Your task to perform on an android device: Open CNN.com Image 0: 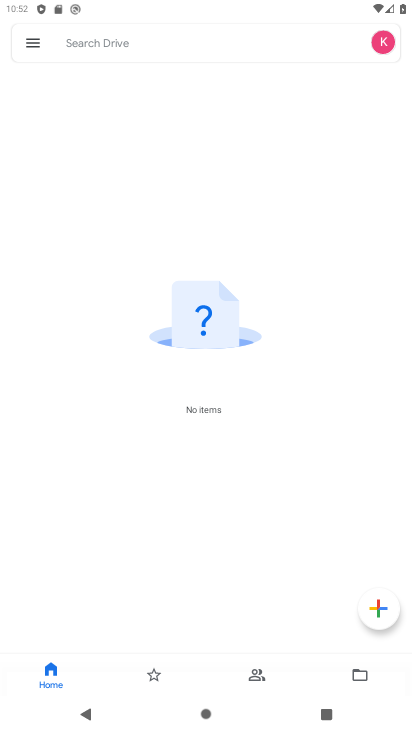
Step 0: press home button
Your task to perform on an android device: Open CNN.com Image 1: 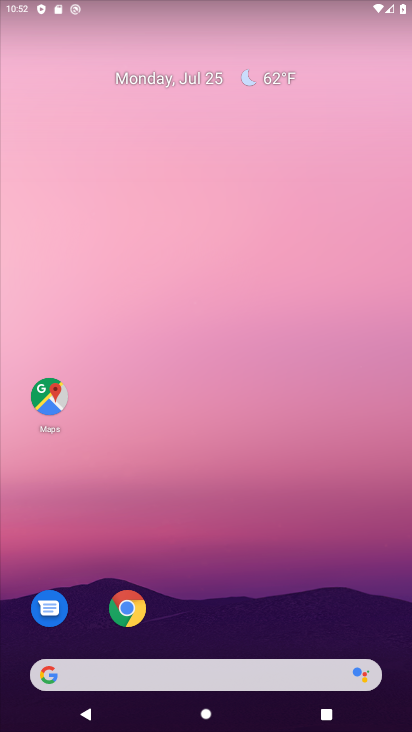
Step 1: drag from (214, 643) to (219, 287)
Your task to perform on an android device: Open CNN.com Image 2: 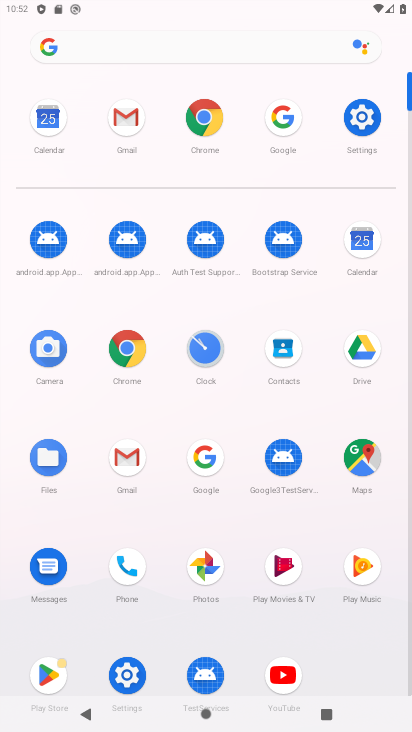
Step 2: click (198, 472)
Your task to perform on an android device: Open CNN.com Image 3: 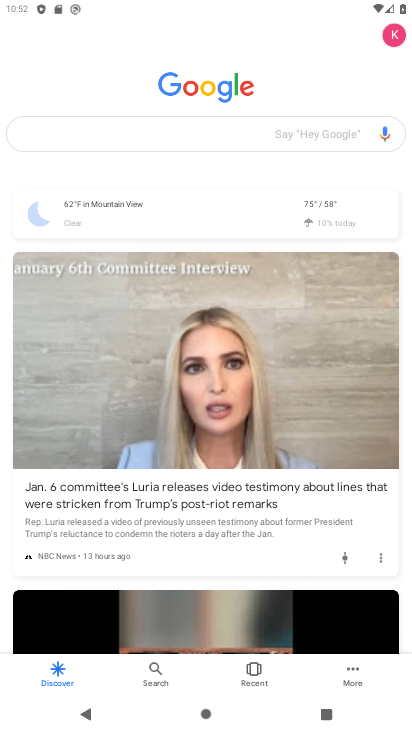
Step 3: click (95, 131)
Your task to perform on an android device: Open CNN.com Image 4: 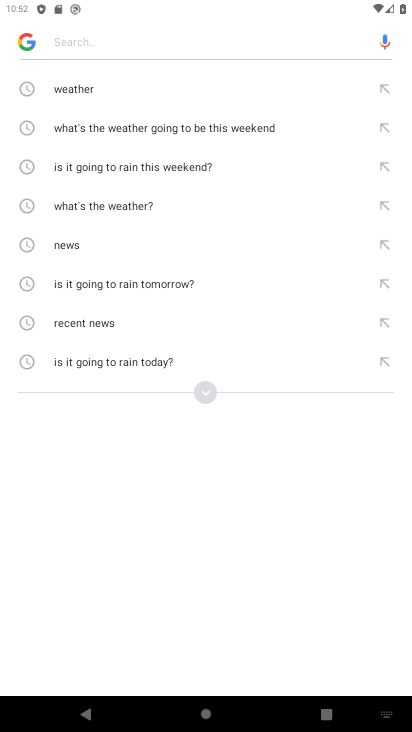
Step 4: click (205, 391)
Your task to perform on an android device: Open CNN.com Image 5: 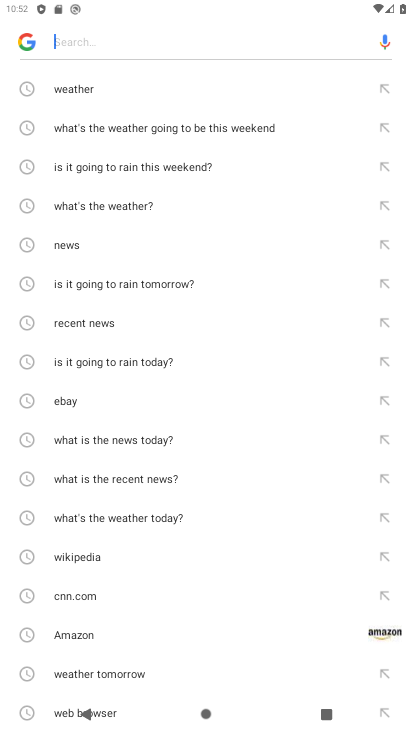
Step 5: click (73, 596)
Your task to perform on an android device: Open CNN.com Image 6: 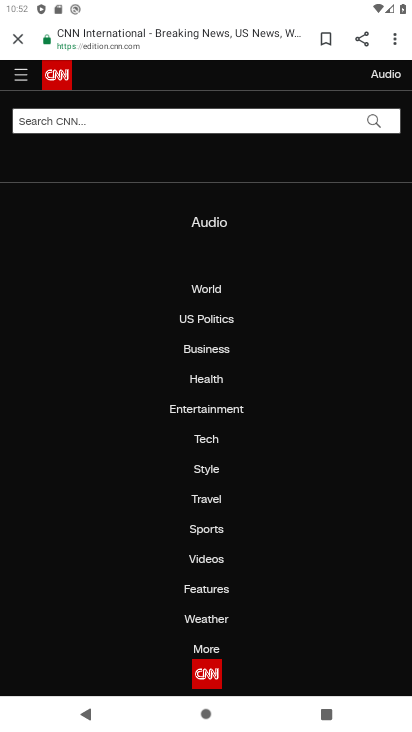
Step 6: task complete